Your task to perform on an android device: What's the weather going to be this weekend? Image 0: 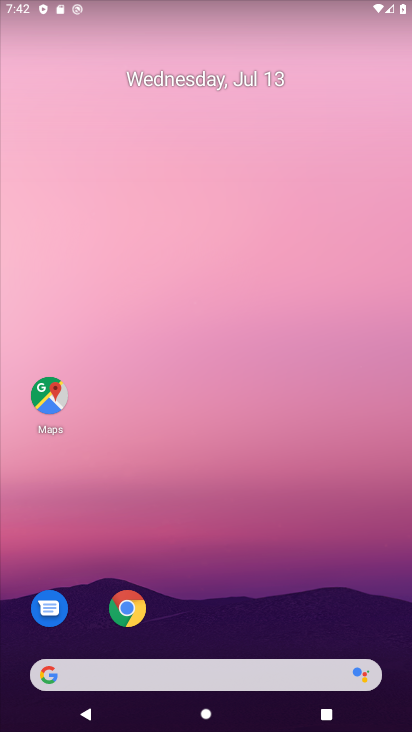
Step 0: drag from (183, 664) to (409, 500)
Your task to perform on an android device: What's the weather going to be this weekend? Image 1: 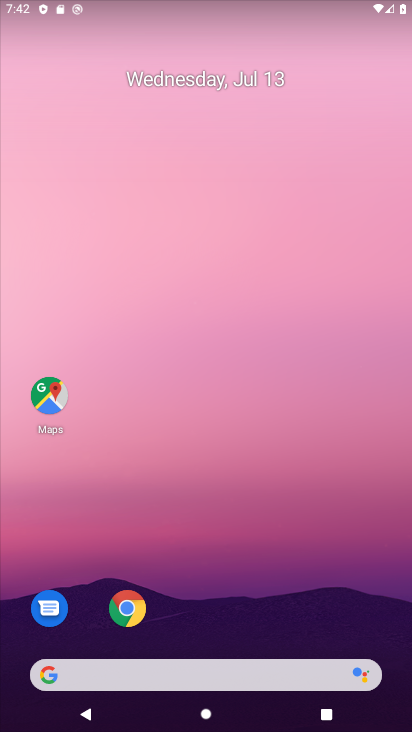
Step 1: click (235, 673)
Your task to perform on an android device: What's the weather going to be this weekend? Image 2: 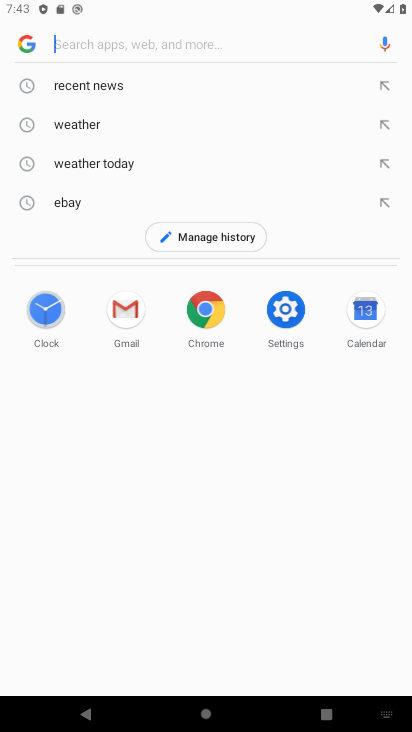
Step 2: click (105, 125)
Your task to perform on an android device: What's the weather going to be this weekend? Image 3: 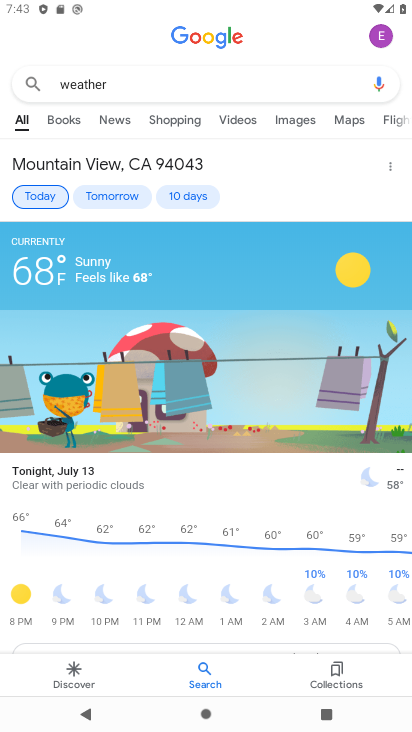
Step 3: click (194, 207)
Your task to perform on an android device: What's the weather going to be this weekend? Image 4: 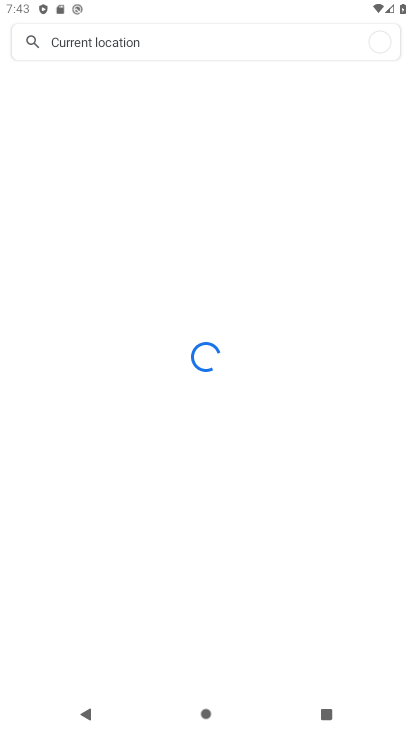
Step 4: click (170, 189)
Your task to perform on an android device: What's the weather going to be this weekend? Image 5: 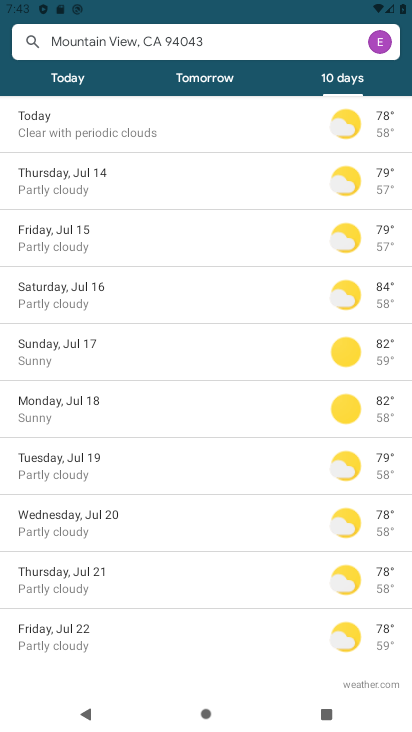
Step 5: task complete